Your task to perform on an android device: Go to network settings Image 0: 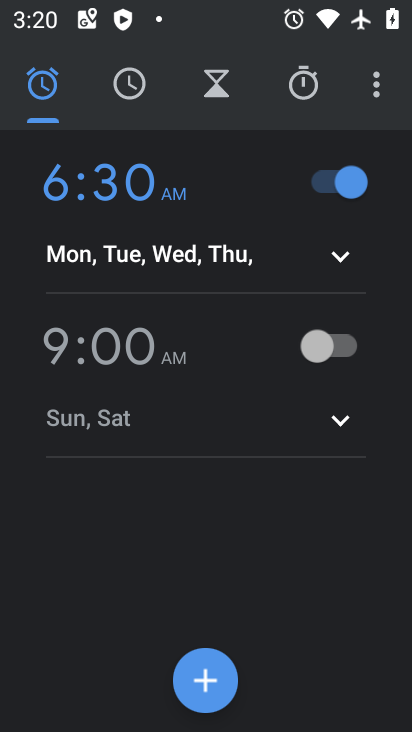
Step 0: press home button
Your task to perform on an android device: Go to network settings Image 1: 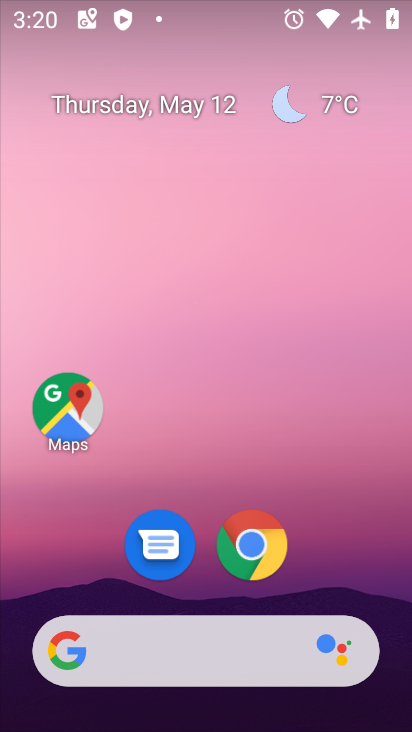
Step 1: drag from (389, 618) to (304, 107)
Your task to perform on an android device: Go to network settings Image 2: 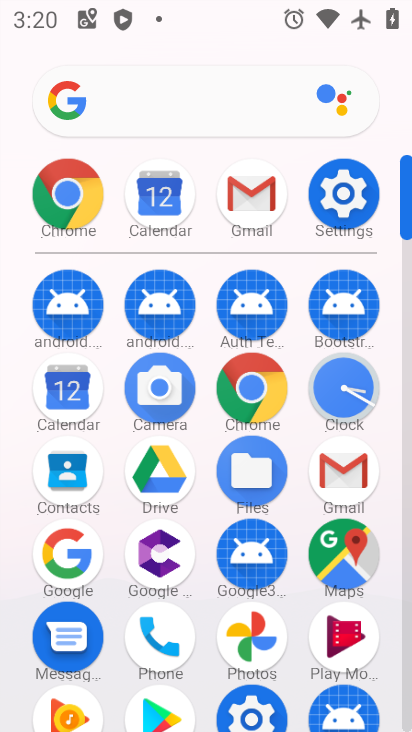
Step 2: click (409, 698)
Your task to perform on an android device: Go to network settings Image 3: 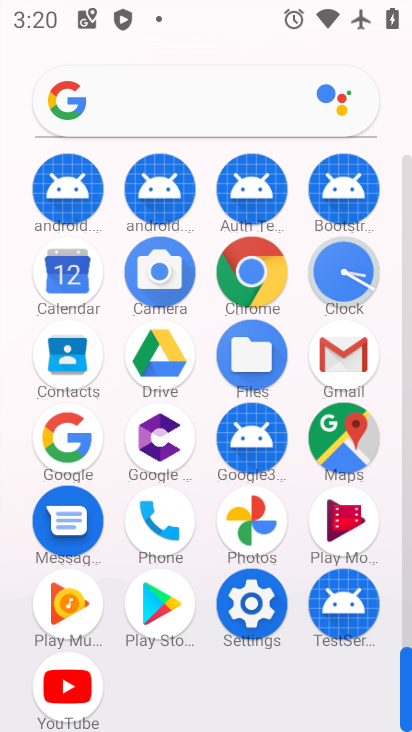
Step 3: click (248, 603)
Your task to perform on an android device: Go to network settings Image 4: 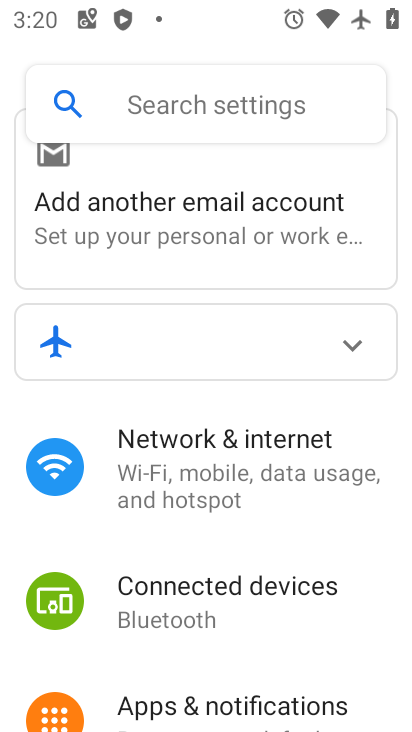
Step 4: click (185, 445)
Your task to perform on an android device: Go to network settings Image 5: 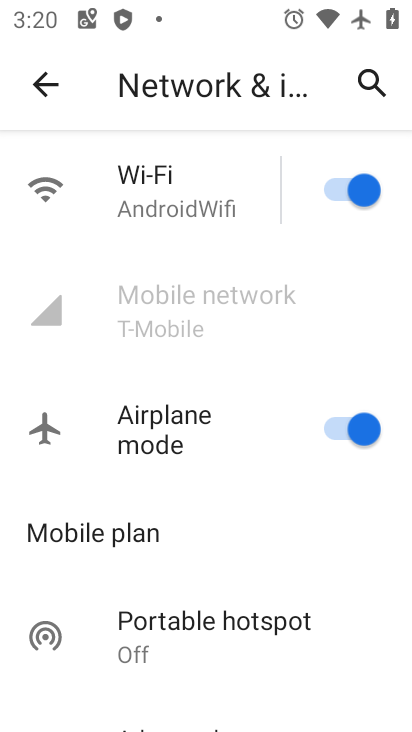
Step 5: drag from (206, 611) to (229, 218)
Your task to perform on an android device: Go to network settings Image 6: 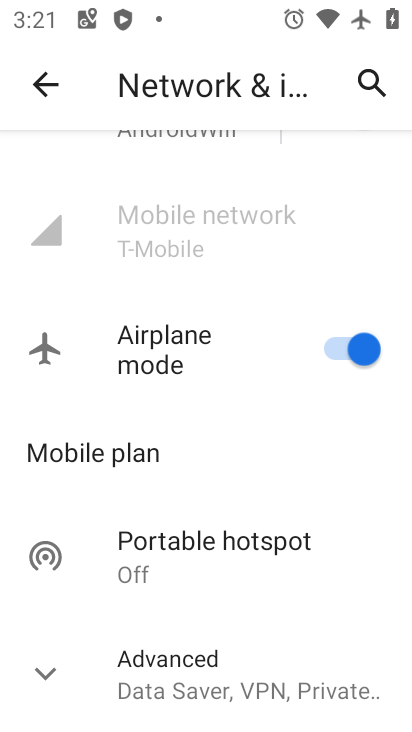
Step 6: click (41, 673)
Your task to perform on an android device: Go to network settings Image 7: 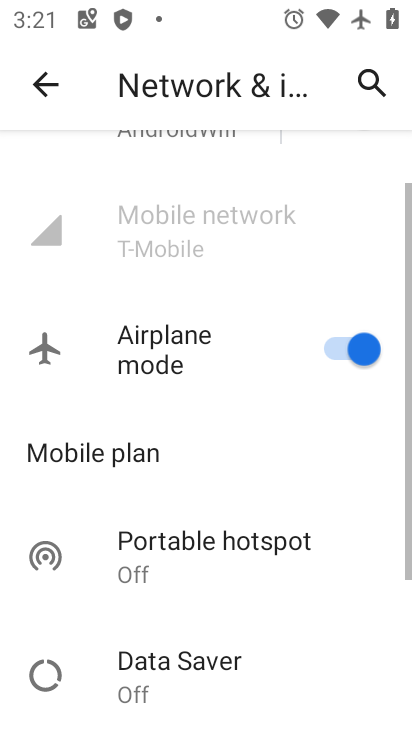
Step 7: task complete